Your task to perform on an android device: Set the phone to "Do not disturb". Image 0: 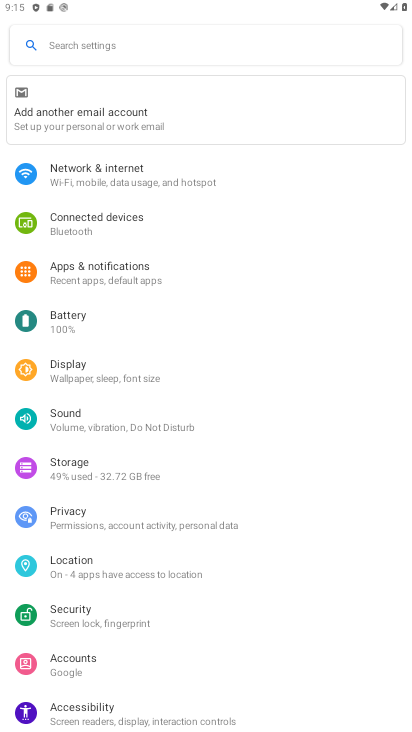
Step 0: click (177, 427)
Your task to perform on an android device: Set the phone to "Do not disturb". Image 1: 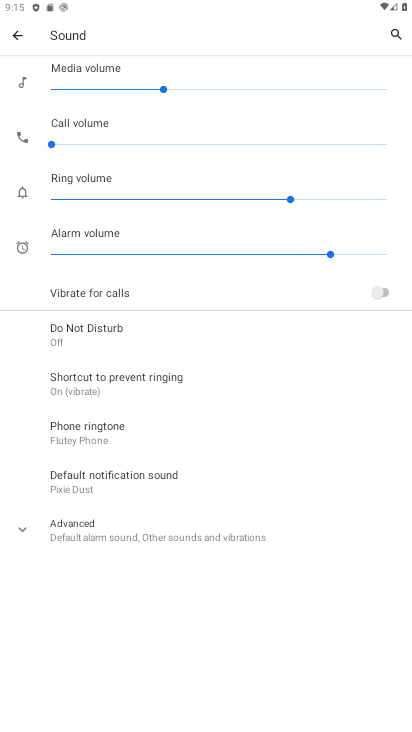
Step 1: click (152, 325)
Your task to perform on an android device: Set the phone to "Do not disturb". Image 2: 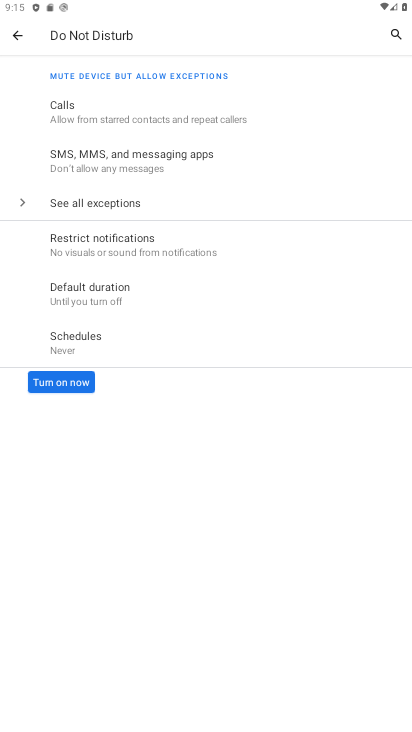
Step 2: click (73, 388)
Your task to perform on an android device: Set the phone to "Do not disturb". Image 3: 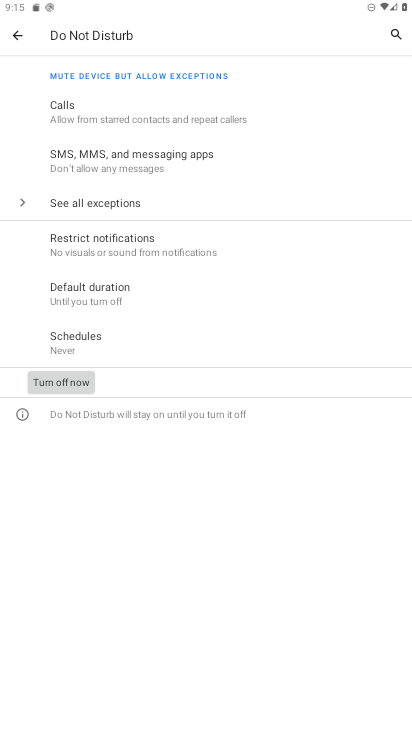
Step 3: task complete